Your task to perform on an android device: uninstall "Expedia: Hotels, Flights & Car" Image 0: 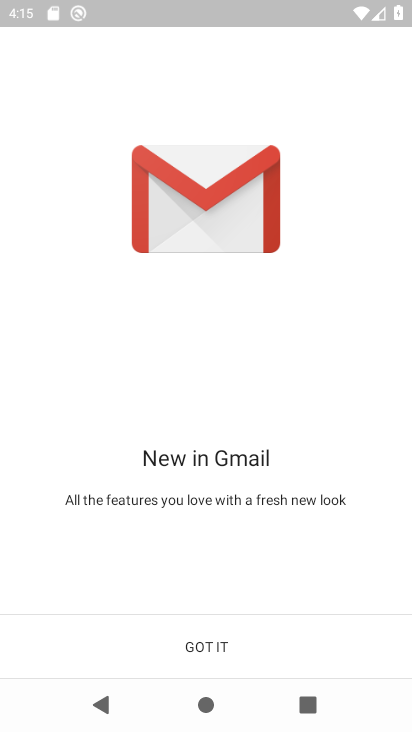
Step 0: press home button
Your task to perform on an android device: uninstall "Expedia: Hotels, Flights & Car" Image 1: 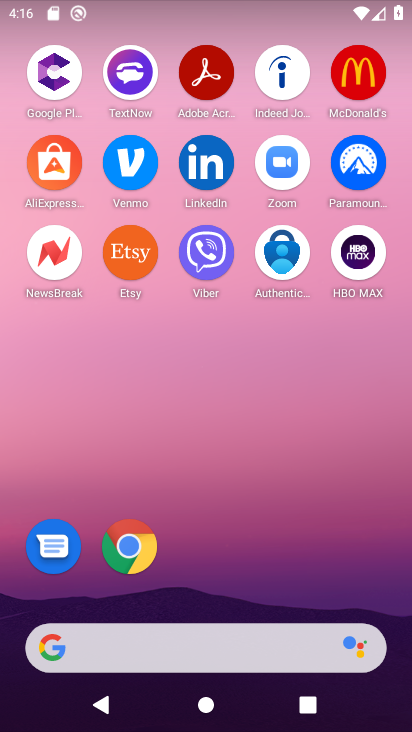
Step 1: drag from (366, 600) to (327, 96)
Your task to perform on an android device: uninstall "Expedia: Hotels, Flights & Car" Image 2: 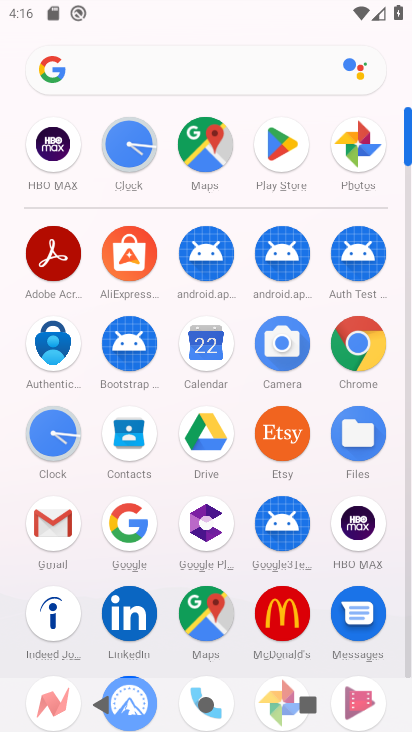
Step 2: click (410, 650)
Your task to perform on an android device: uninstall "Expedia: Hotels, Flights & Car" Image 3: 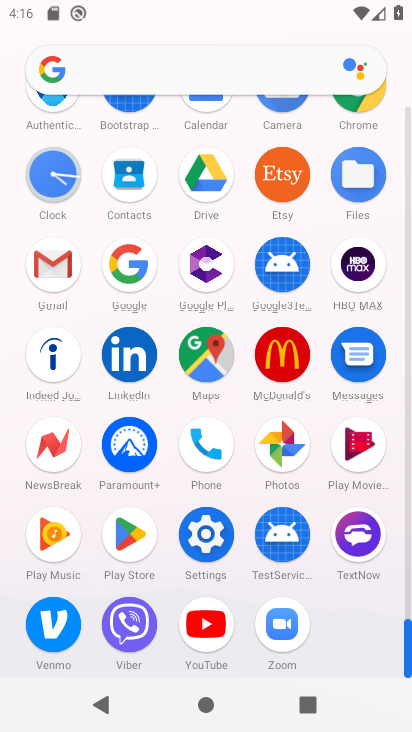
Step 3: click (129, 535)
Your task to perform on an android device: uninstall "Expedia: Hotels, Flights & Car" Image 4: 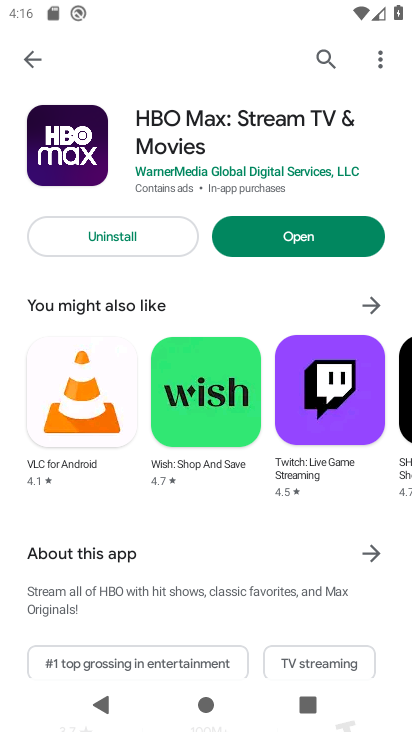
Step 4: click (321, 53)
Your task to perform on an android device: uninstall "Expedia: Hotels, Flights & Car" Image 5: 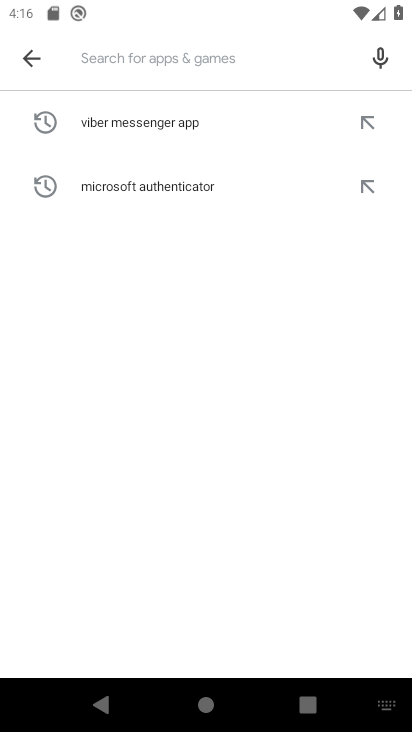
Step 5: type "Expedia: Hotels, Flights & Car"
Your task to perform on an android device: uninstall "Expedia: Hotels, Flights & Car" Image 6: 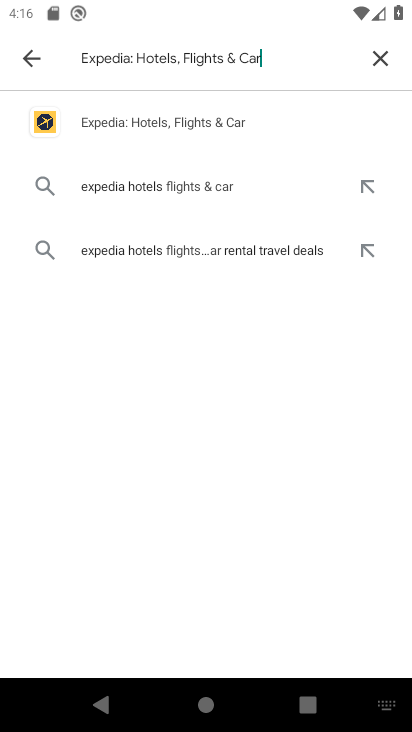
Step 6: click (144, 120)
Your task to perform on an android device: uninstall "Expedia: Hotels, Flights & Car" Image 7: 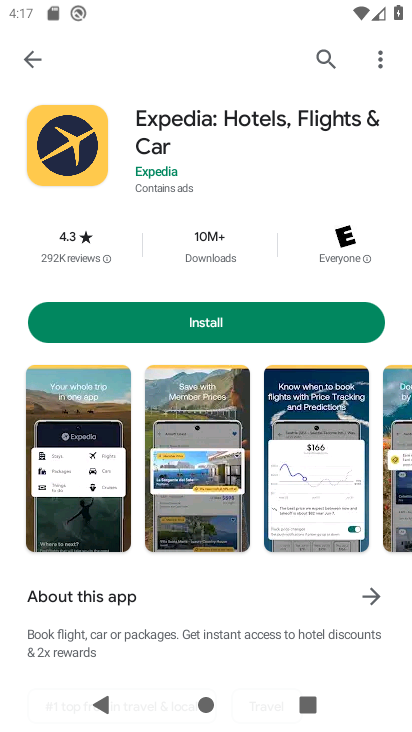
Step 7: task complete